Your task to perform on an android device: check data usage Image 0: 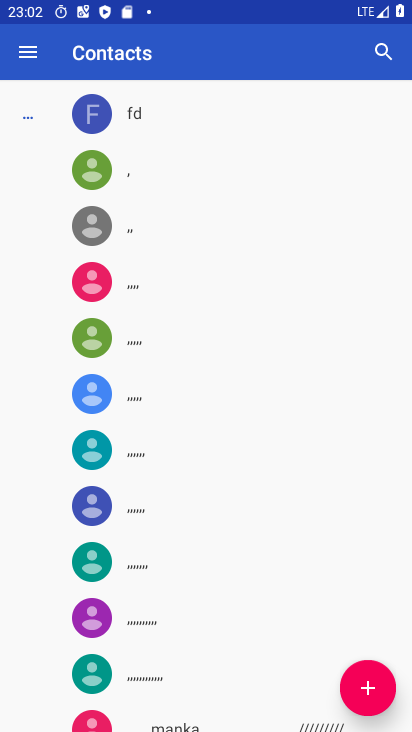
Step 0: drag from (329, 5) to (279, 393)
Your task to perform on an android device: check data usage Image 1: 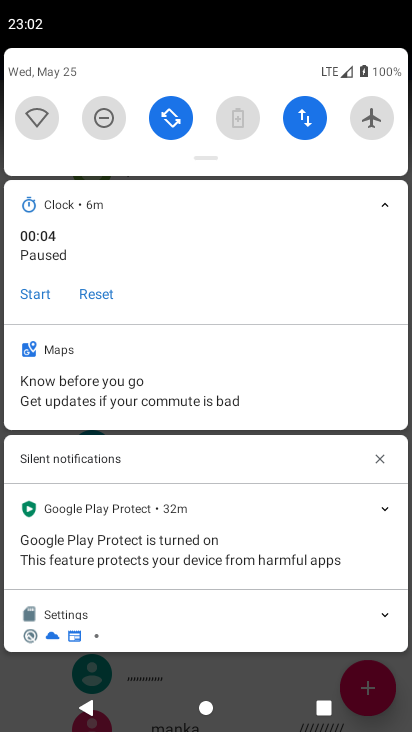
Step 1: click (38, 112)
Your task to perform on an android device: check data usage Image 2: 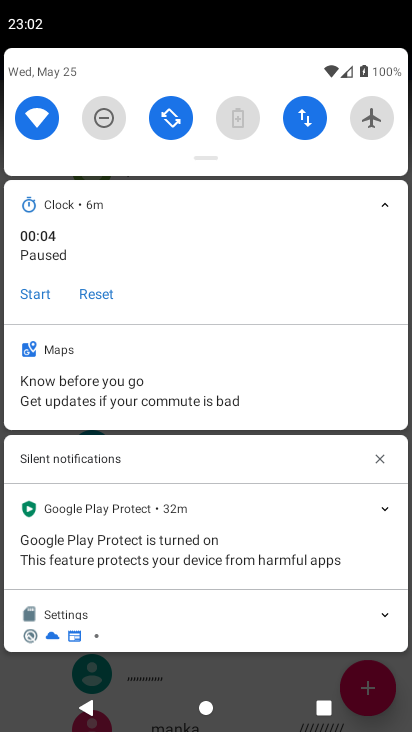
Step 2: press home button
Your task to perform on an android device: check data usage Image 3: 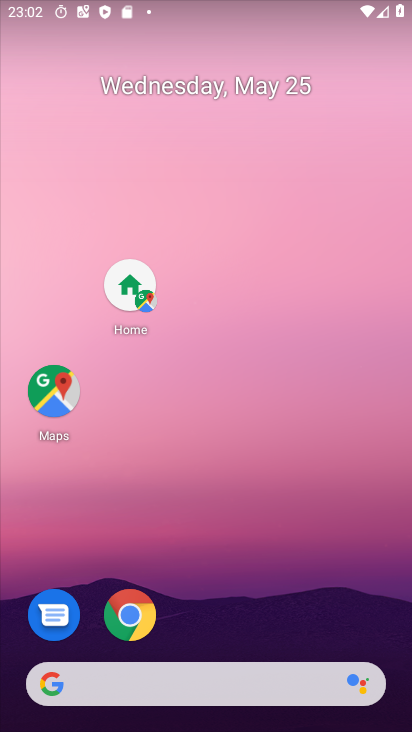
Step 3: drag from (299, 558) to (324, 124)
Your task to perform on an android device: check data usage Image 4: 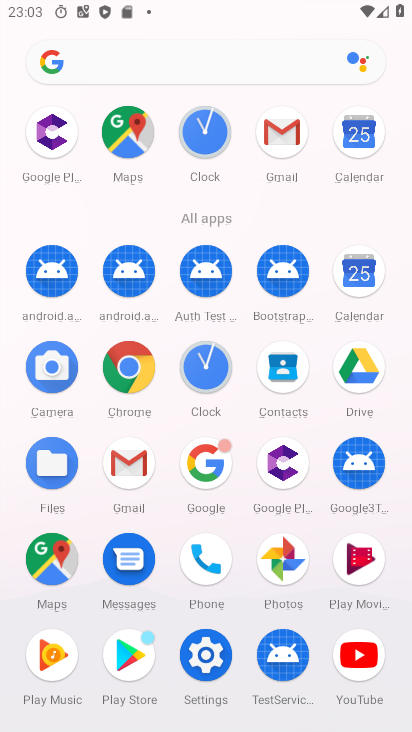
Step 4: click (212, 657)
Your task to perform on an android device: check data usage Image 5: 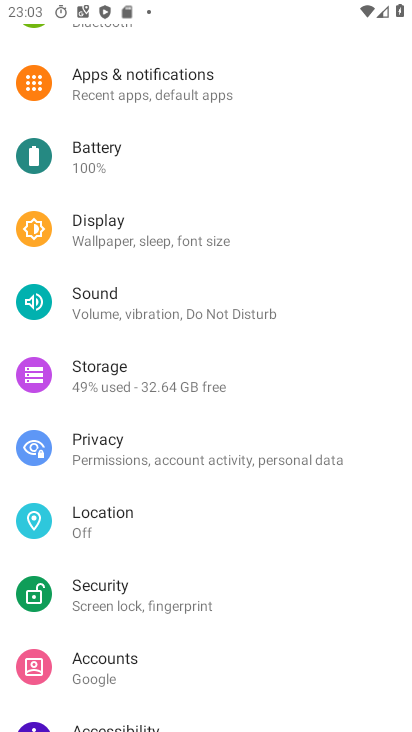
Step 5: click (291, 574)
Your task to perform on an android device: check data usage Image 6: 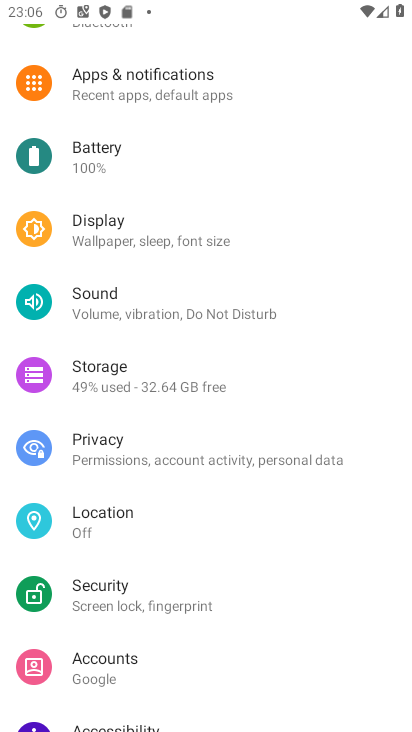
Step 6: press home button
Your task to perform on an android device: check data usage Image 7: 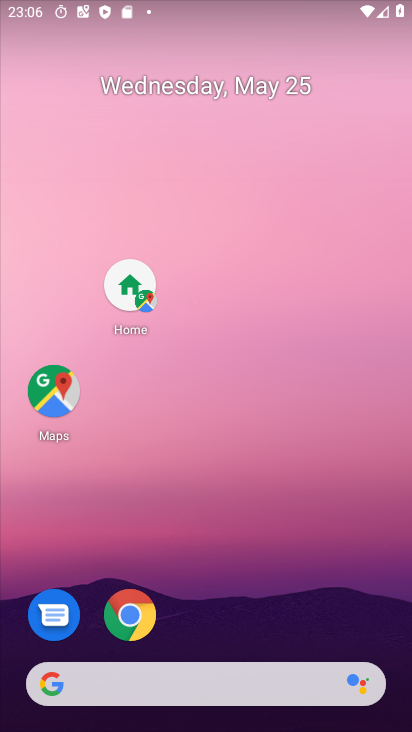
Step 7: drag from (252, 537) to (257, 180)
Your task to perform on an android device: check data usage Image 8: 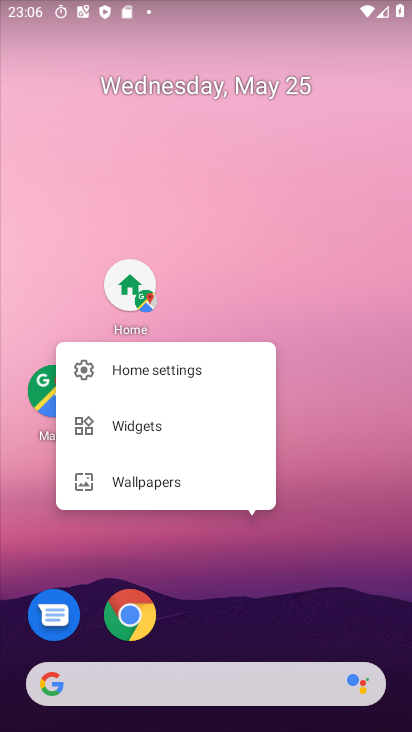
Step 8: drag from (307, 563) to (284, 160)
Your task to perform on an android device: check data usage Image 9: 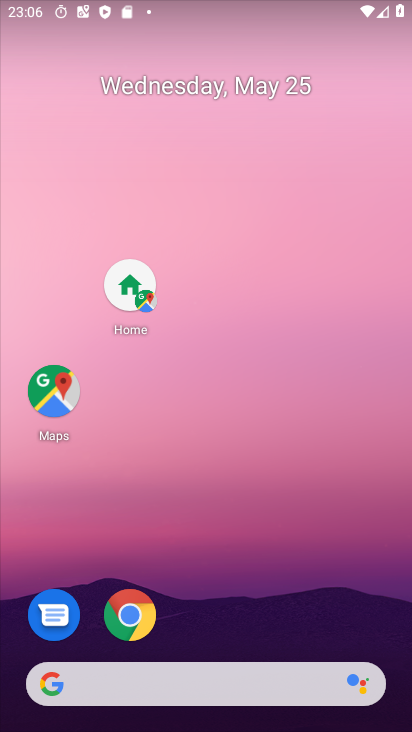
Step 9: drag from (211, 543) to (231, 102)
Your task to perform on an android device: check data usage Image 10: 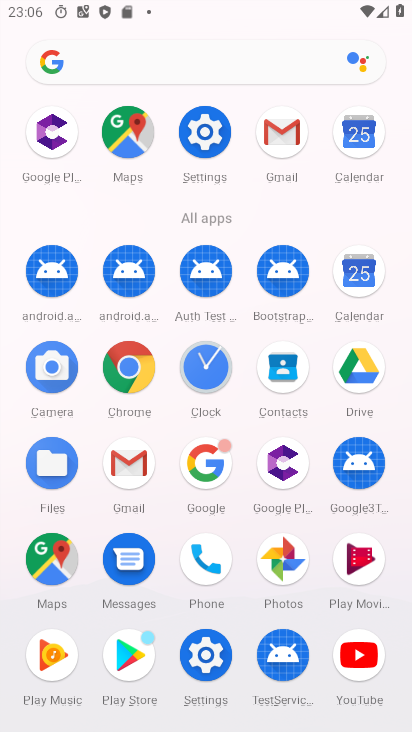
Step 10: click (211, 121)
Your task to perform on an android device: check data usage Image 11: 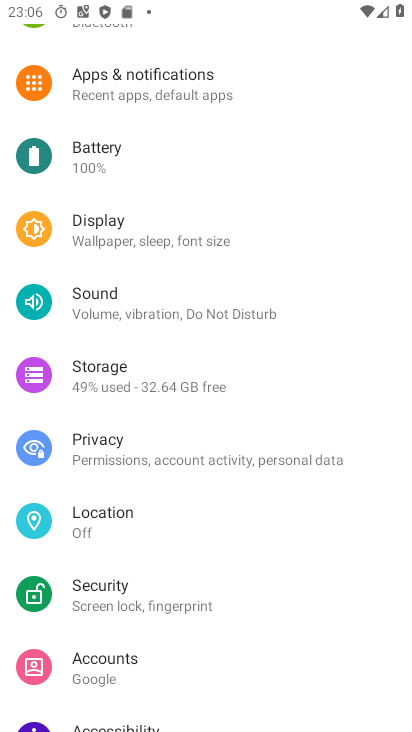
Step 11: drag from (229, 619) to (172, 98)
Your task to perform on an android device: check data usage Image 12: 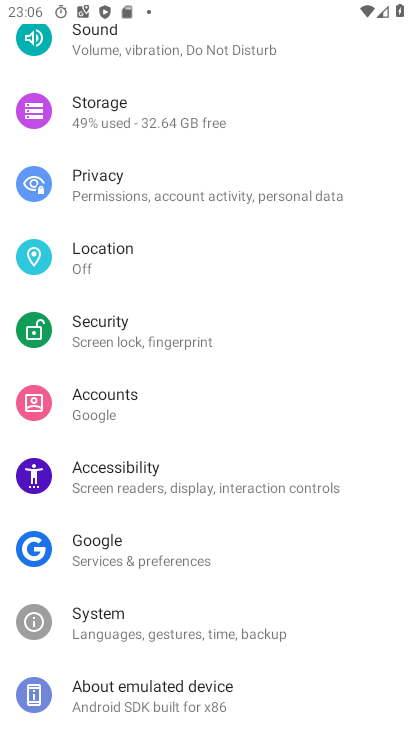
Step 12: drag from (269, 562) to (249, 190)
Your task to perform on an android device: check data usage Image 13: 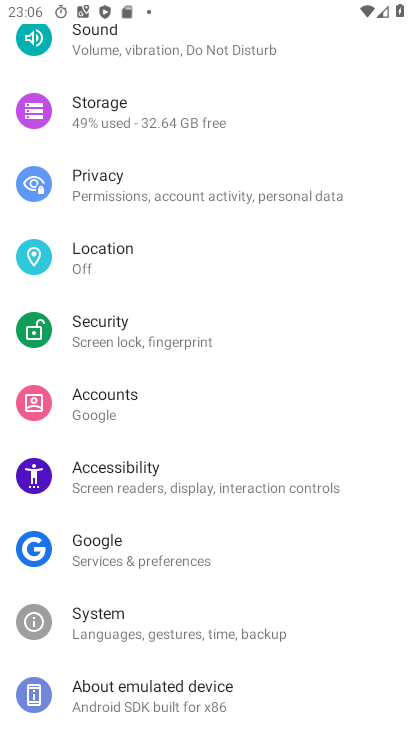
Step 13: drag from (265, 128) to (195, 564)
Your task to perform on an android device: check data usage Image 14: 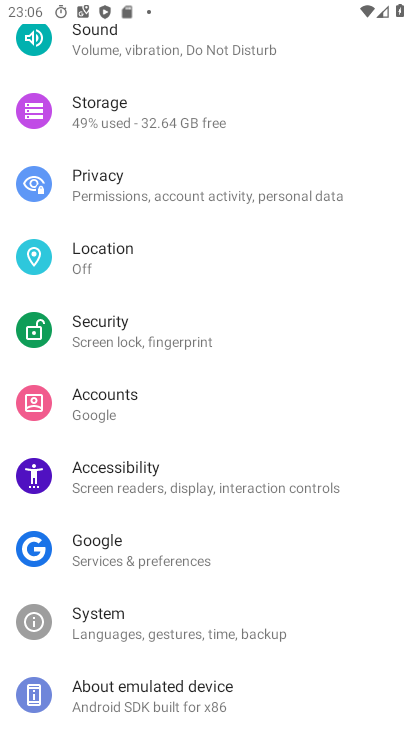
Step 14: drag from (294, 119) to (239, 364)
Your task to perform on an android device: check data usage Image 15: 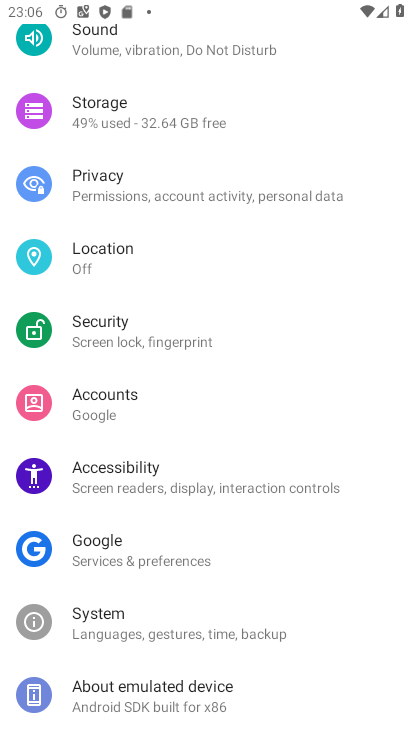
Step 15: drag from (181, 115) to (162, 639)
Your task to perform on an android device: check data usage Image 16: 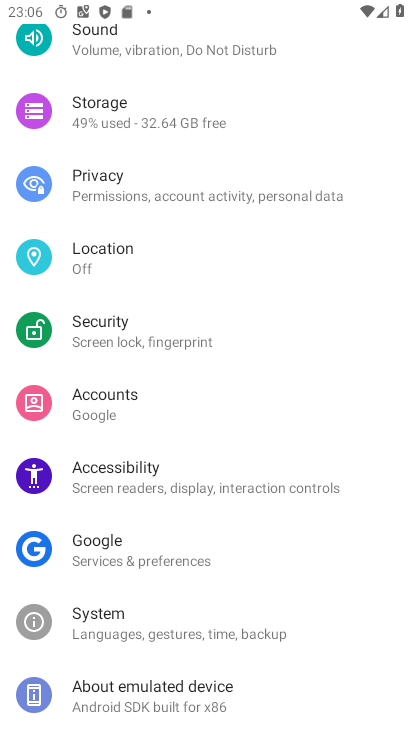
Step 16: drag from (268, 258) to (215, 691)
Your task to perform on an android device: check data usage Image 17: 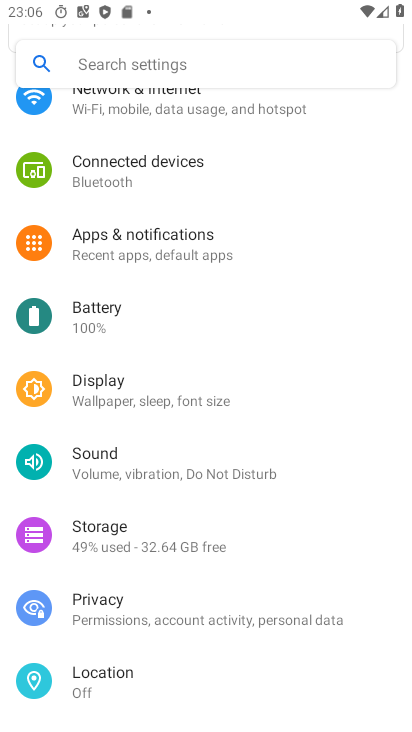
Step 17: drag from (238, 132) to (199, 100)
Your task to perform on an android device: check data usage Image 18: 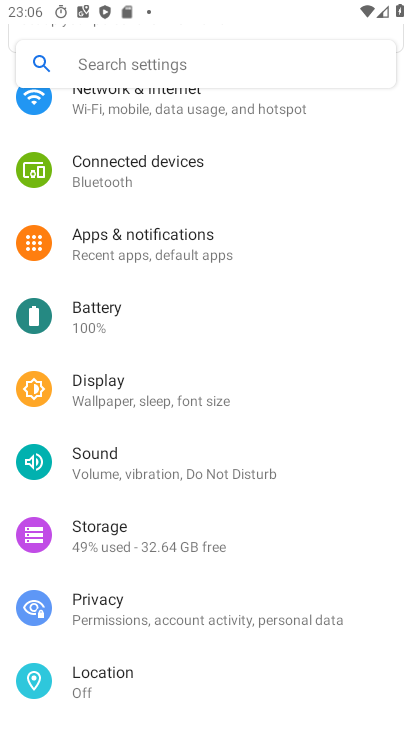
Step 18: click (198, 99)
Your task to perform on an android device: check data usage Image 19: 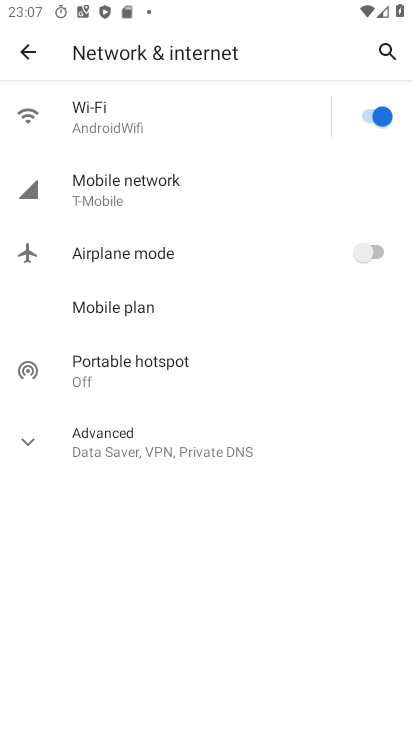
Step 19: click (129, 188)
Your task to perform on an android device: check data usage Image 20: 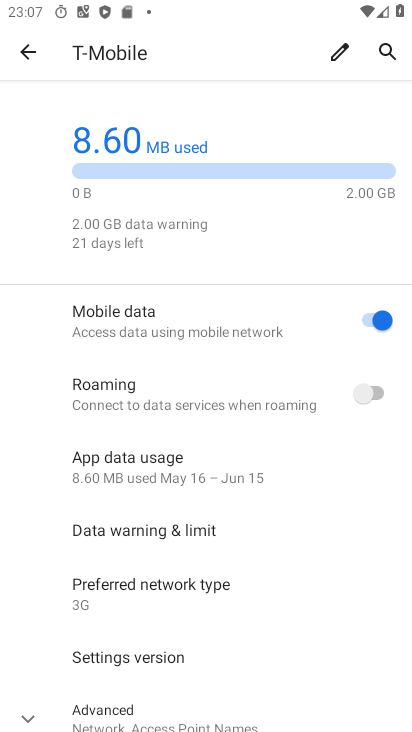
Step 20: task complete